Your task to perform on an android device: see sites visited before in the chrome app Image 0: 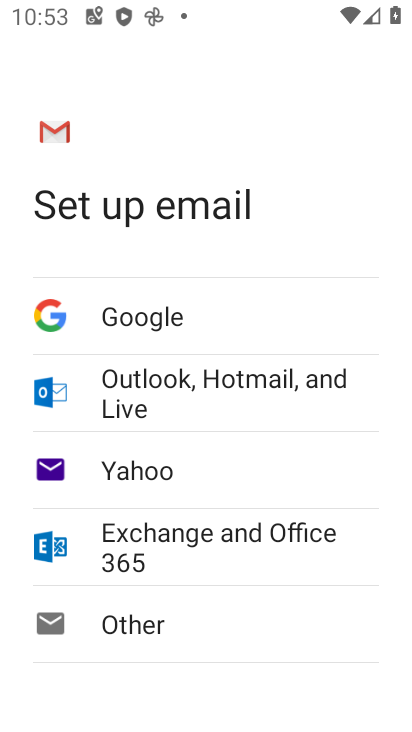
Step 0: press home button
Your task to perform on an android device: see sites visited before in the chrome app Image 1: 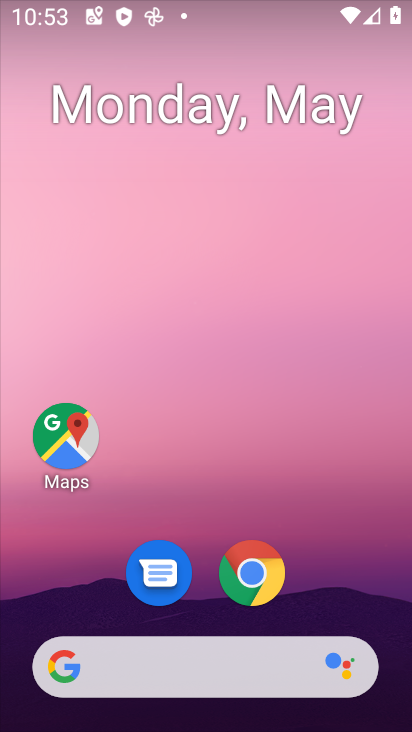
Step 1: click (265, 575)
Your task to perform on an android device: see sites visited before in the chrome app Image 2: 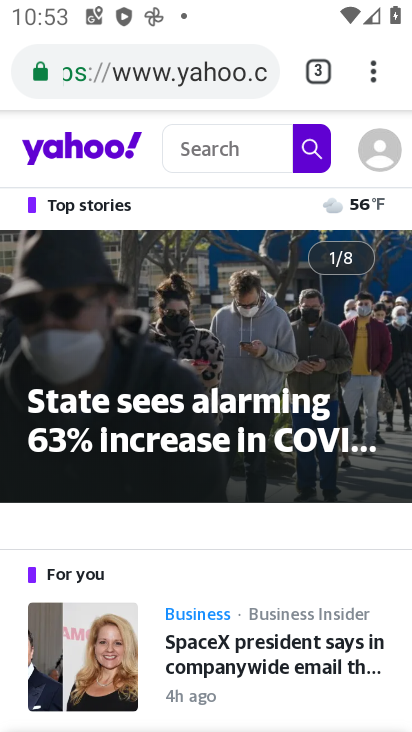
Step 2: click (382, 67)
Your task to perform on an android device: see sites visited before in the chrome app Image 3: 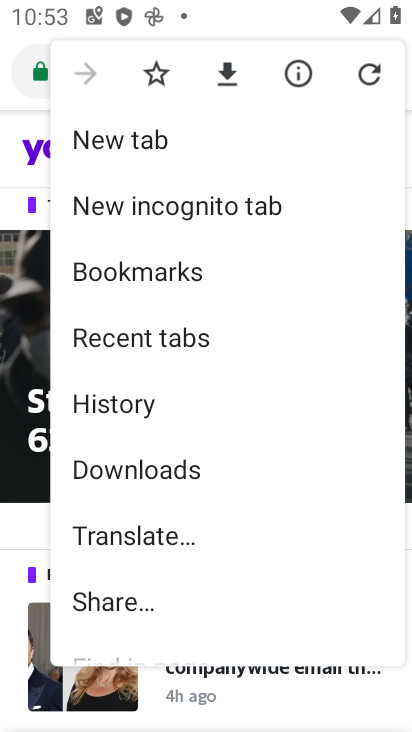
Step 3: drag from (200, 550) to (246, 168)
Your task to perform on an android device: see sites visited before in the chrome app Image 4: 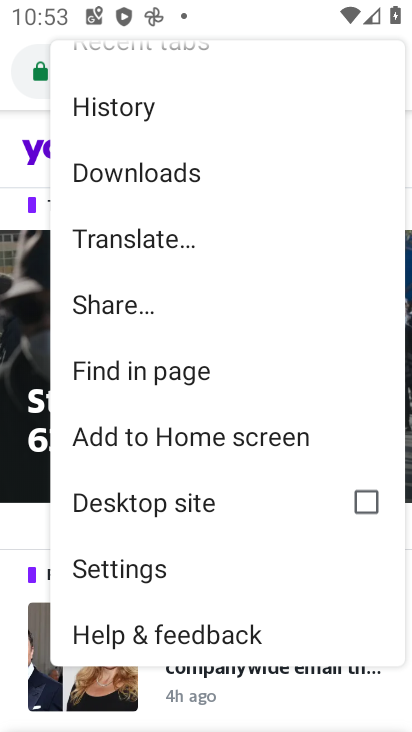
Step 4: click (167, 577)
Your task to perform on an android device: see sites visited before in the chrome app Image 5: 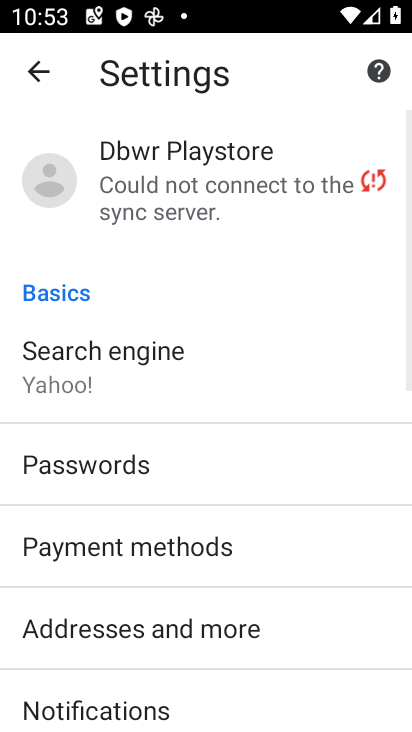
Step 5: drag from (227, 606) to (233, 351)
Your task to perform on an android device: see sites visited before in the chrome app Image 6: 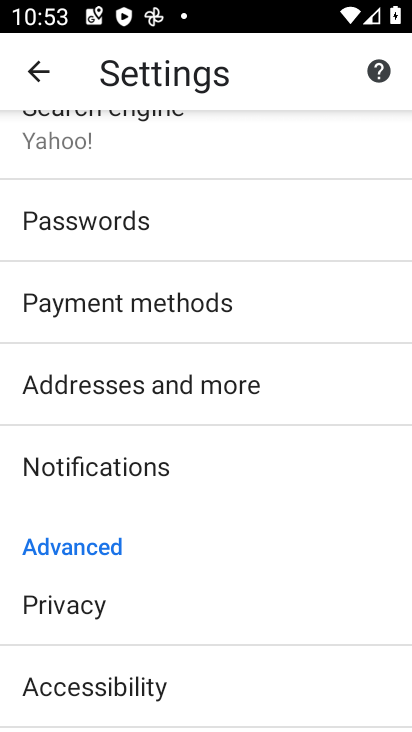
Step 6: drag from (198, 631) to (230, 341)
Your task to perform on an android device: see sites visited before in the chrome app Image 7: 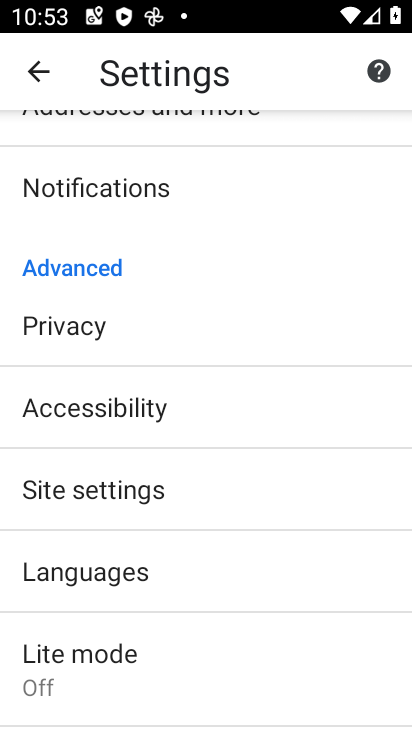
Step 7: click (190, 567)
Your task to perform on an android device: see sites visited before in the chrome app Image 8: 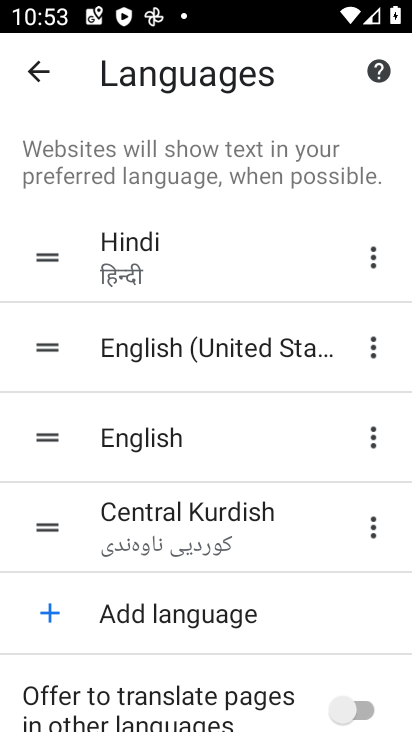
Step 8: task complete